Your task to perform on an android device: open wifi settings Image 0: 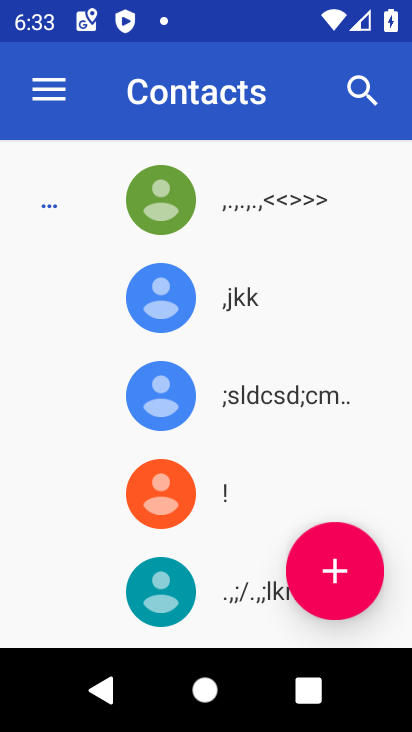
Step 0: press home button
Your task to perform on an android device: open wifi settings Image 1: 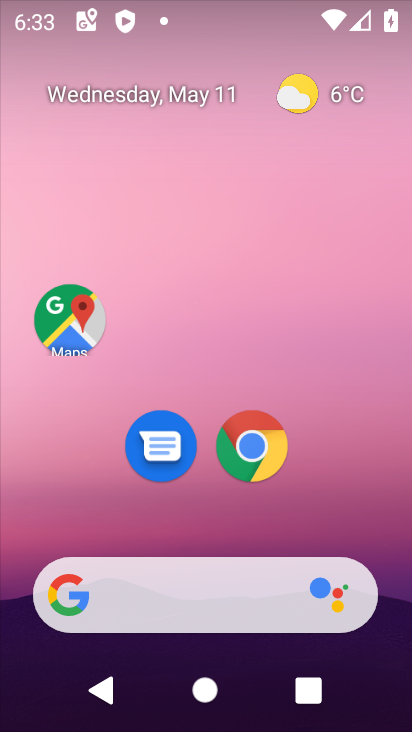
Step 1: drag from (105, 2) to (73, 517)
Your task to perform on an android device: open wifi settings Image 2: 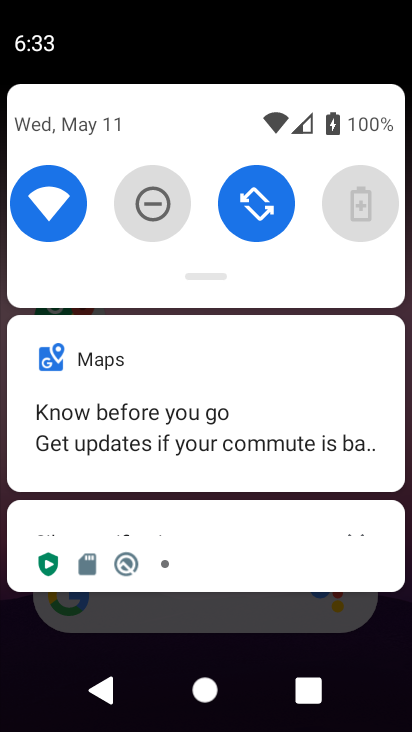
Step 2: click (44, 208)
Your task to perform on an android device: open wifi settings Image 3: 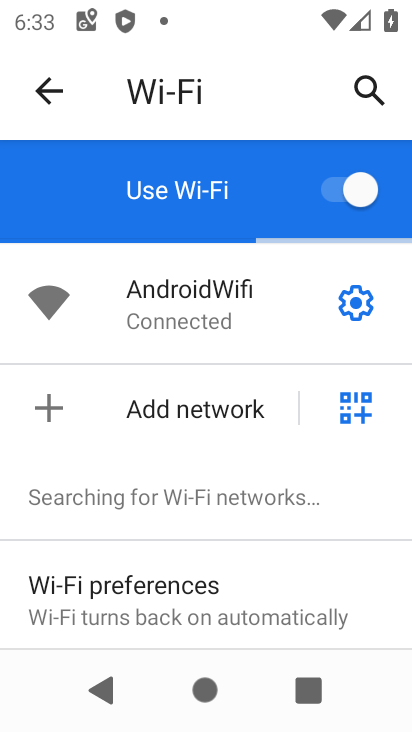
Step 3: task complete